Your task to perform on an android device: set the stopwatch Image 0: 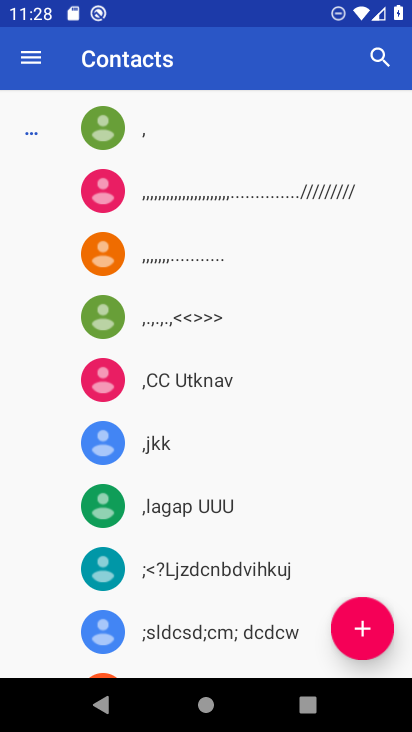
Step 0: press back button
Your task to perform on an android device: set the stopwatch Image 1: 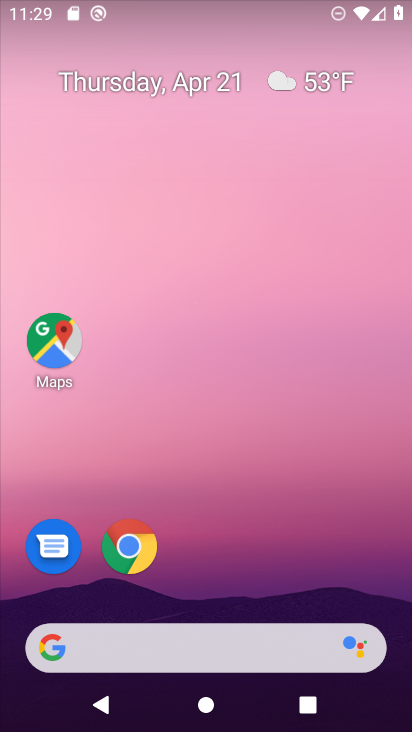
Step 1: drag from (188, 617) to (215, 213)
Your task to perform on an android device: set the stopwatch Image 2: 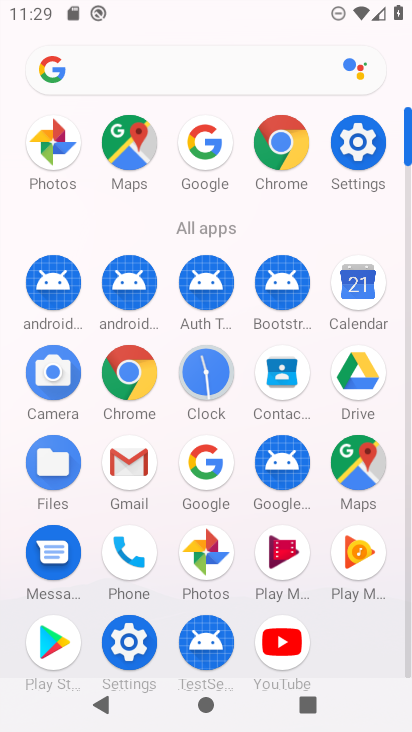
Step 2: click (207, 378)
Your task to perform on an android device: set the stopwatch Image 3: 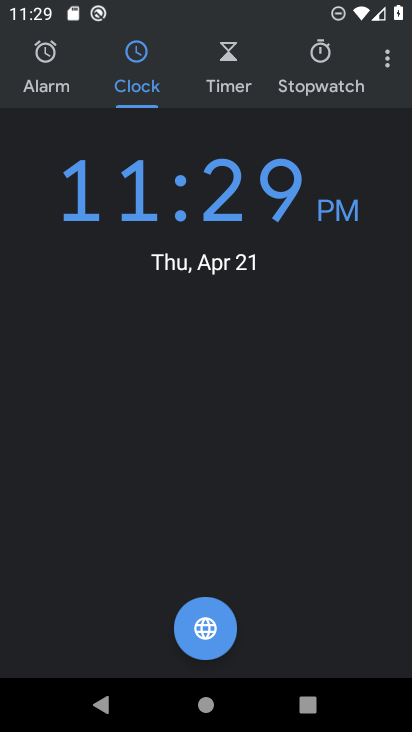
Step 3: click (334, 60)
Your task to perform on an android device: set the stopwatch Image 4: 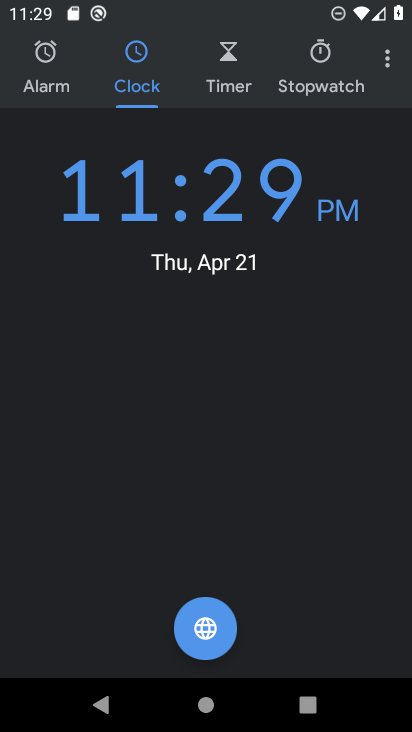
Step 4: click (319, 76)
Your task to perform on an android device: set the stopwatch Image 5: 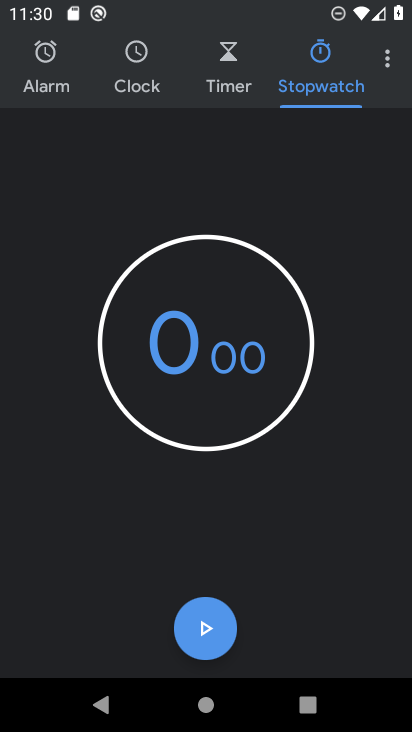
Step 5: task complete